Your task to perform on an android device: Open the calendar and show me this week's events Image 0: 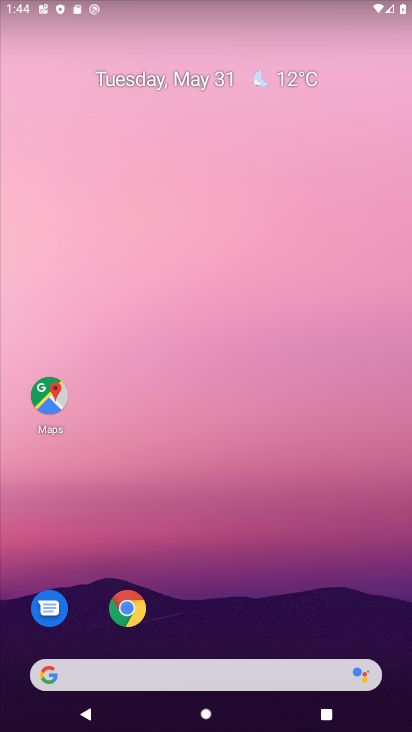
Step 0: drag from (334, 605) to (255, 216)
Your task to perform on an android device: Open the calendar and show me this week's events Image 1: 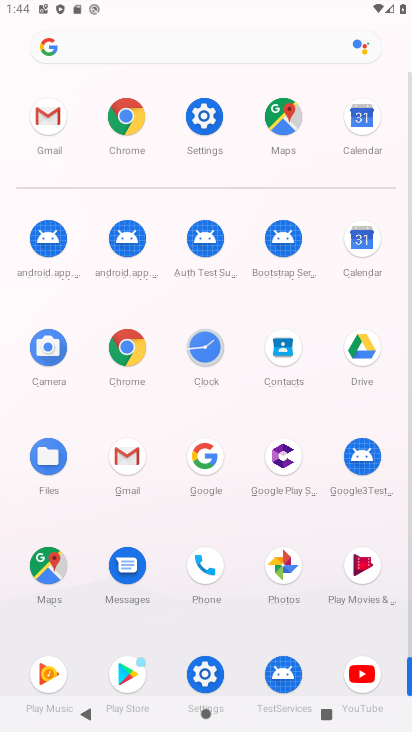
Step 1: click (368, 247)
Your task to perform on an android device: Open the calendar and show me this week's events Image 2: 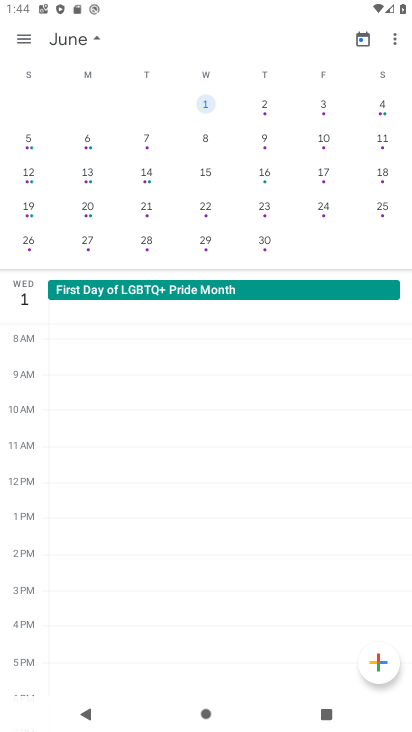
Step 2: click (23, 40)
Your task to perform on an android device: Open the calendar and show me this week's events Image 3: 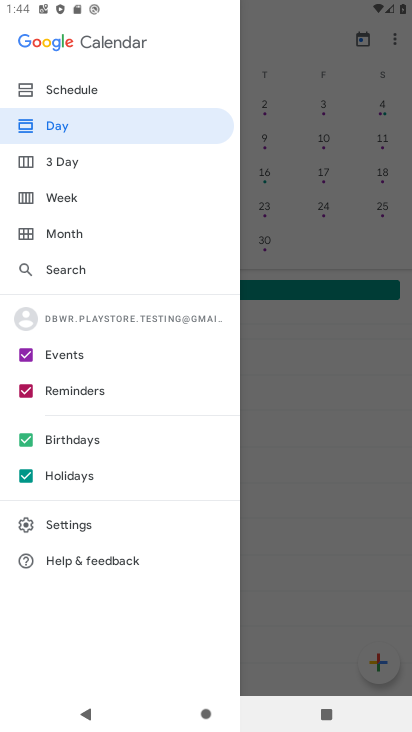
Step 3: click (70, 92)
Your task to perform on an android device: Open the calendar and show me this week's events Image 4: 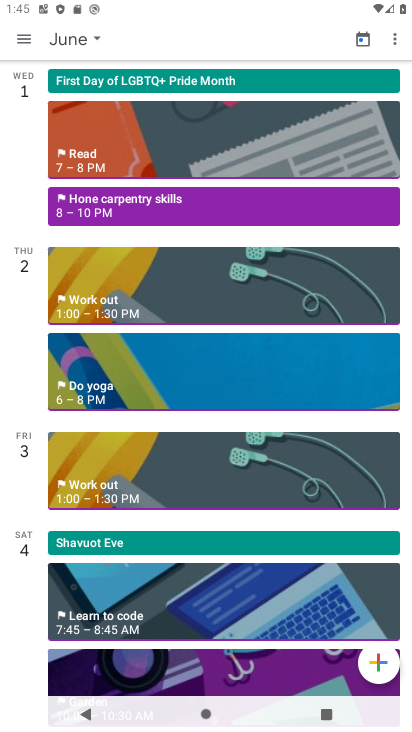
Step 4: task complete